Your task to perform on an android device: all mails in gmail Image 0: 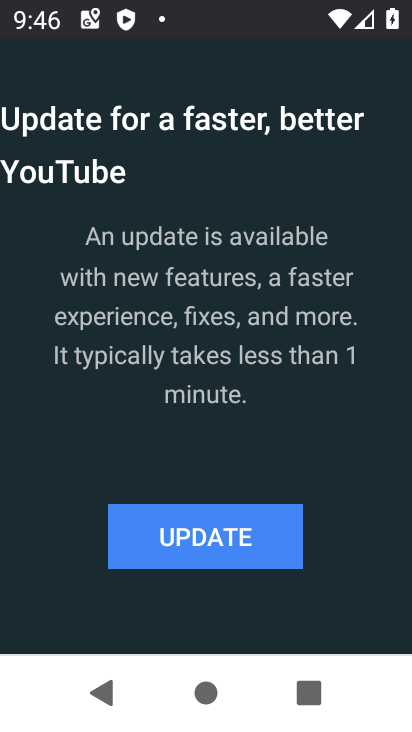
Step 0: press back button
Your task to perform on an android device: all mails in gmail Image 1: 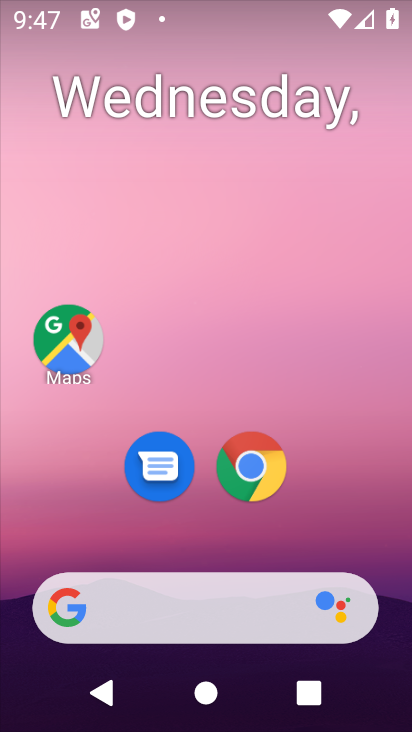
Step 1: drag from (315, 518) to (207, 237)
Your task to perform on an android device: all mails in gmail Image 2: 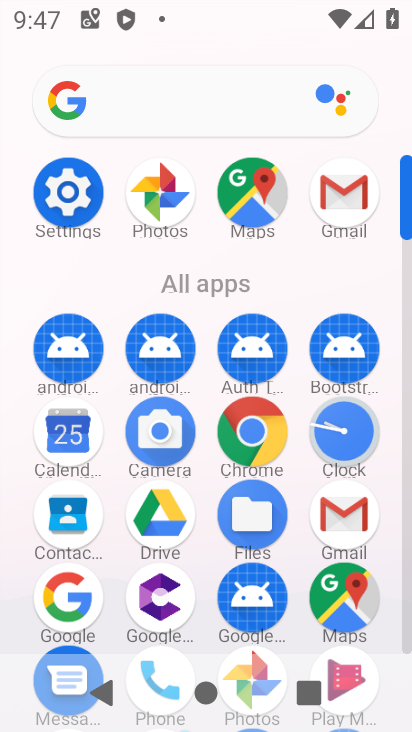
Step 2: click (335, 211)
Your task to perform on an android device: all mails in gmail Image 3: 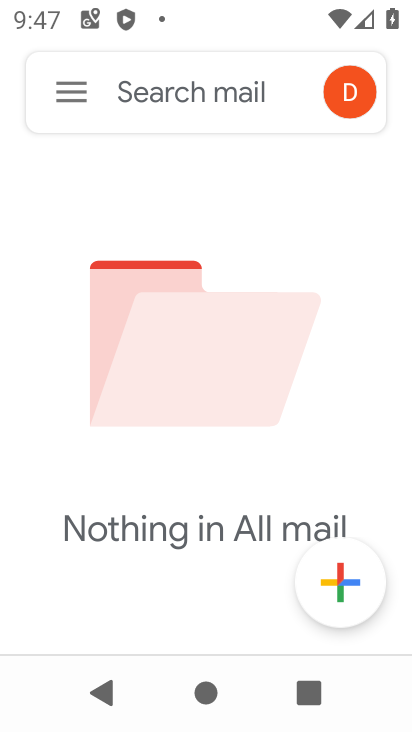
Step 3: task complete